Your task to perform on an android device: open a new tab in the chrome app Image 0: 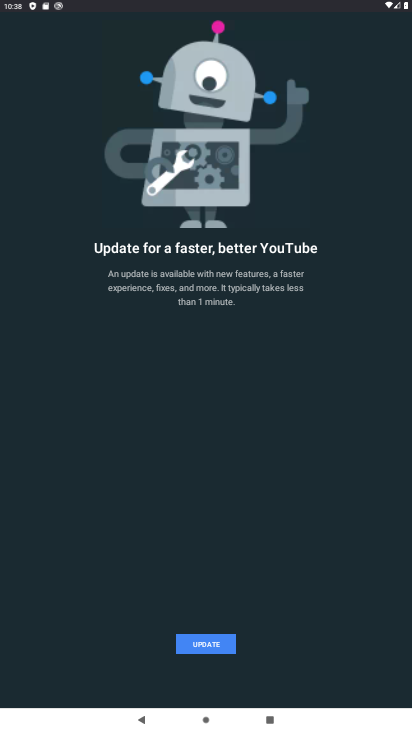
Step 0: press back button
Your task to perform on an android device: open a new tab in the chrome app Image 1: 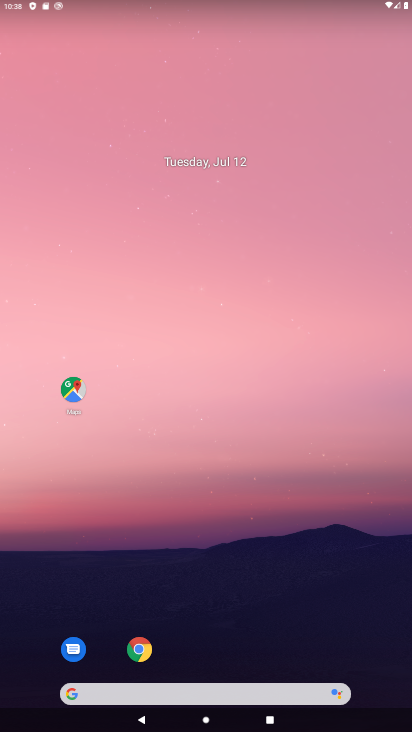
Step 1: click (148, 655)
Your task to perform on an android device: open a new tab in the chrome app Image 2: 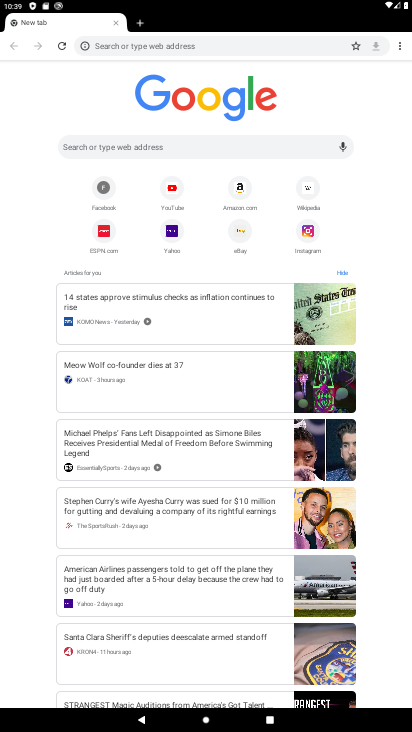
Step 2: click (403, 43)
Your task to perform on an android device: open a new tab in the chrome app Image 3: 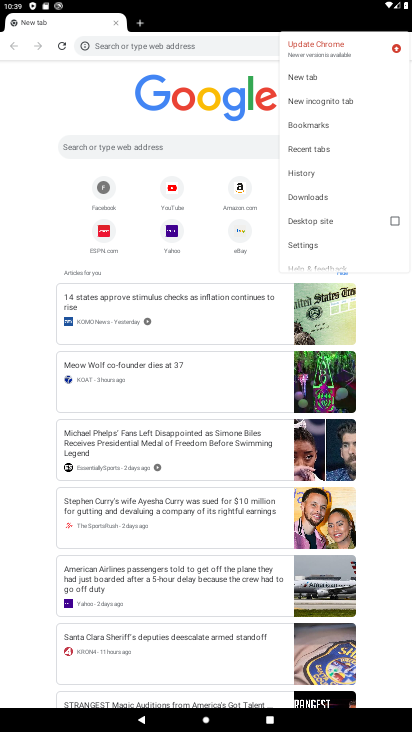
Step 3: click (334, 75)
Your task to perform on an android device: open a new tab in the chrome app Image 4: 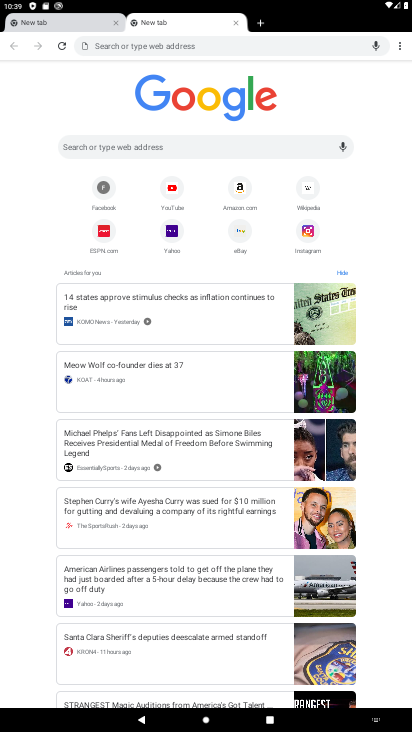
Step 4: click (406, 49)
Your task to perform on an android device: open a new tab in the chrome app Image 5: 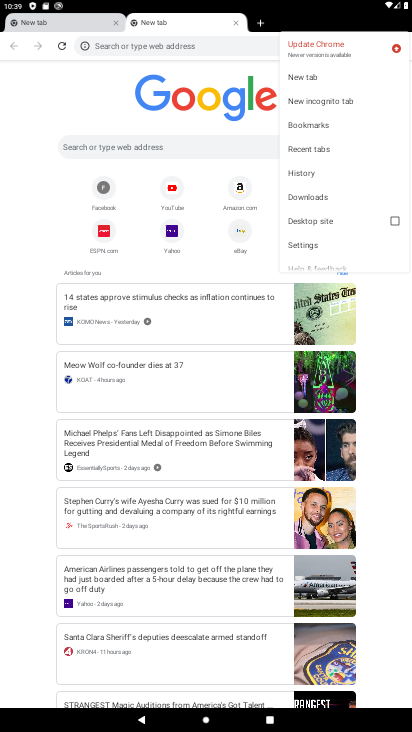
Step 5: click (368, 73)
Your task to perform on an android device: open a new tab in the chrome app Image 6: 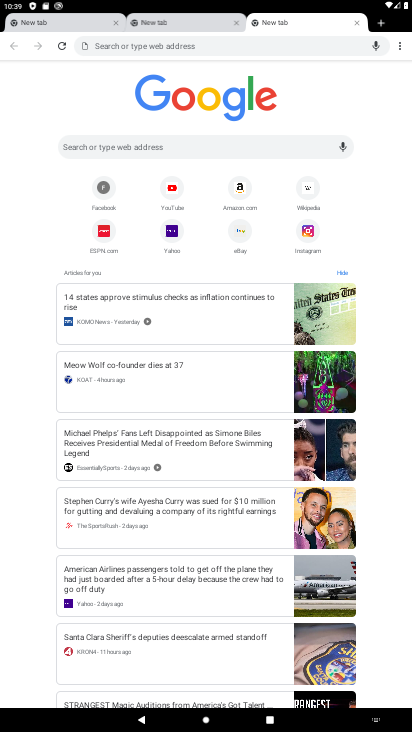
Step 6: task complete